Your task to perform on an android device: What's on my calendar today? Image 0: 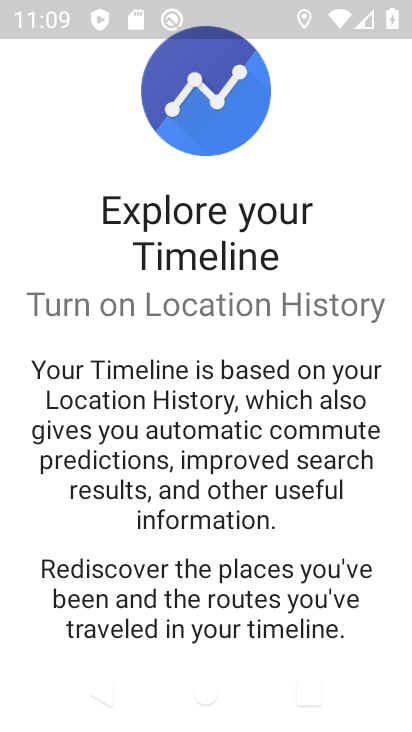
Step 0: press home button
Your task to perform on an android device: What's on my calendar today? Image 1: 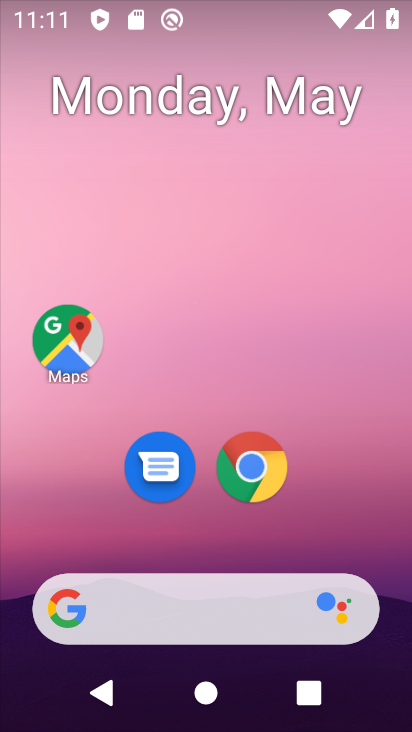
Step 1: drag from (356, 500) to (331, 75)
Your task to perform on an android device: What's on my calendar today? Image 2: 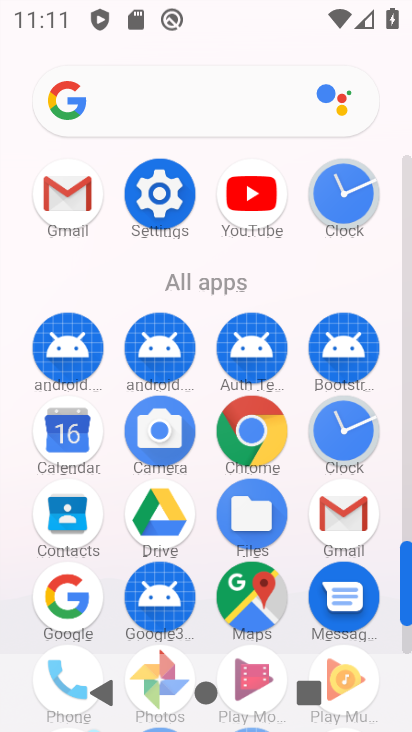
Step 2: click (79, 423)
Your task to perform on an android device: What's on my calendar today? Image 3: 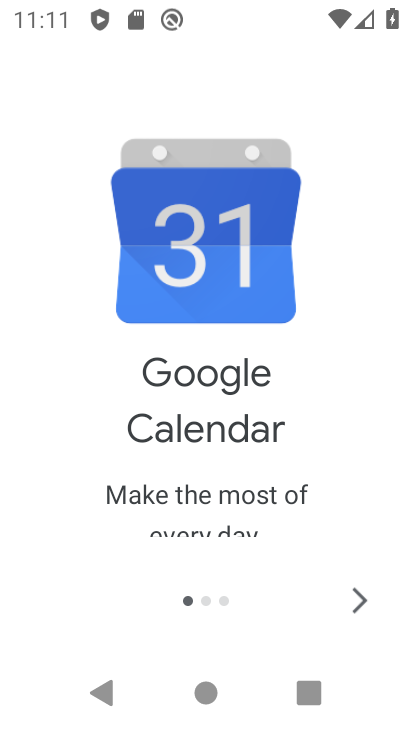
Step 3: click (342, 606)
Your task to perform on an android device: What's on my calendar today? Image 4: 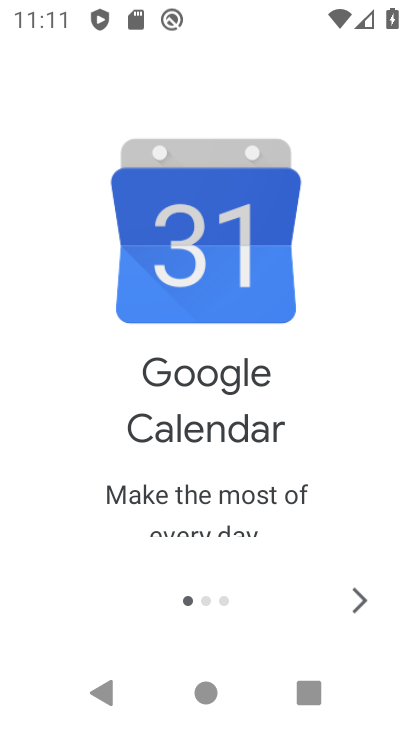
Step 4: click (342, 606)
Your task to perform on an android device: What's on my calendar today? Image 5: 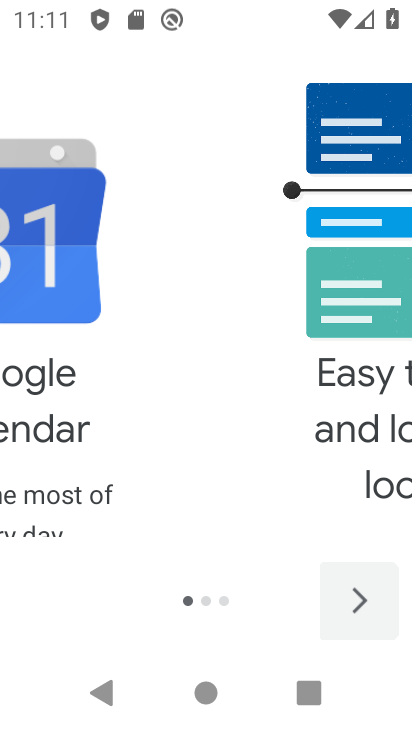
Step 5: click (342, 606)
Your task to perform on an android device: What's on my calendar today? Image 6: 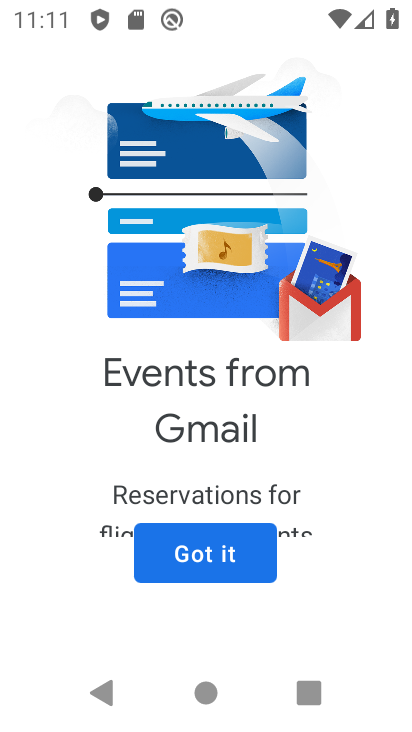
Step 6: click (193, 557)
Your task to perform on an android device: What's on my calendar today? Image 7: 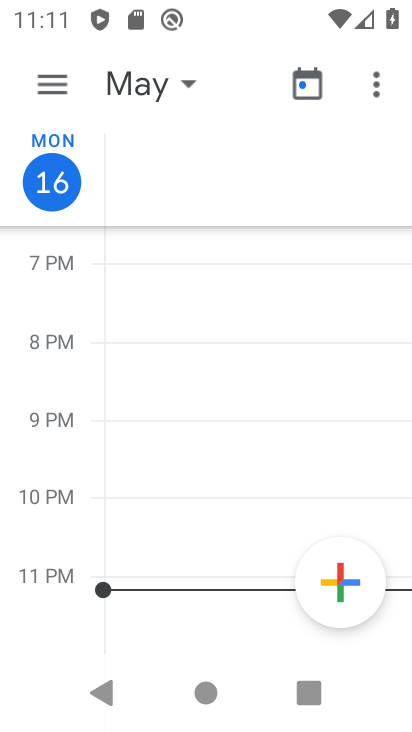
Step 7: click (180, 92)
Your task to perform on an android device: What's on my calendar today? Image 8: 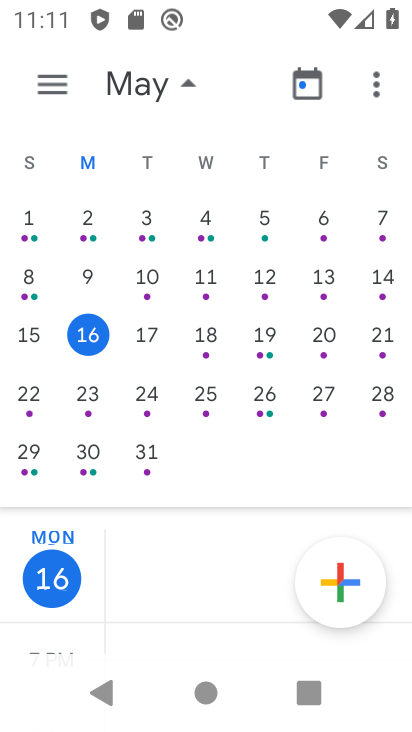
Step 8: click (139, 328)
Your task to perform on an android device: What's on my calendar today? Image 9: 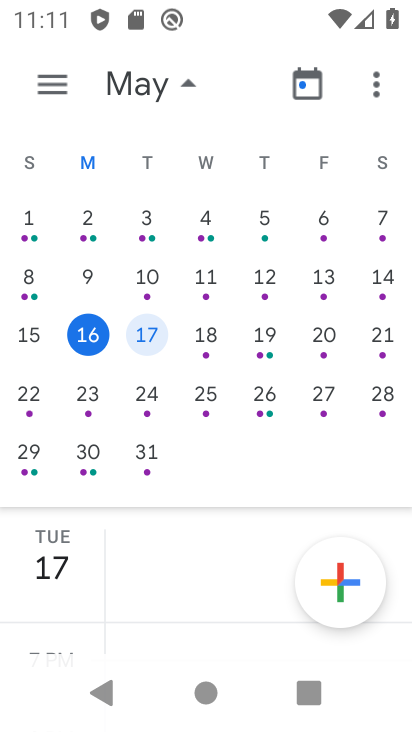
Step 9: task complete